Your task to perform on an android device: Do I have any events tomorrow? Image 0: 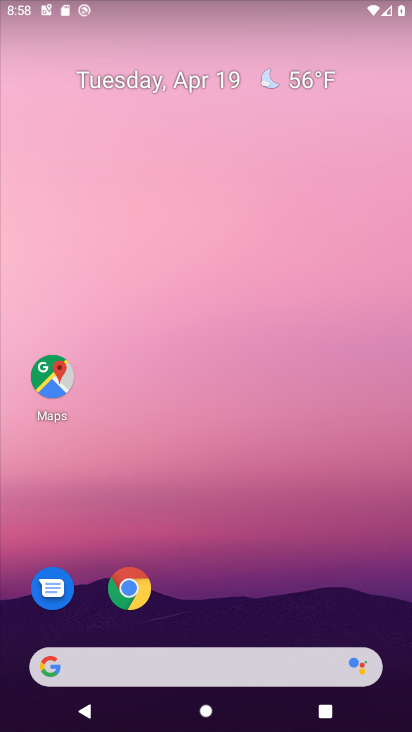
Step 0: click (53, 373)
Your task to perform on an android device: Do I have any events tomorrow? Image 1: 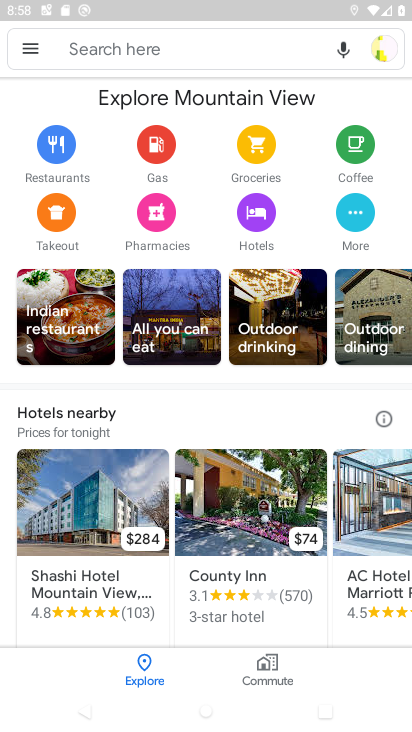
Step 1: press home button
Your task to perform on an android device: Do I have any events tomorrow? Image 2: 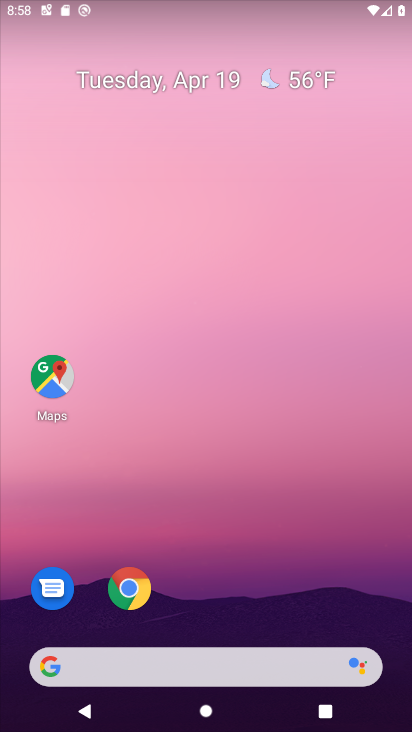
Step 2: drag from (211, 628) to (185, 32)
Your task to perform on an android device: Do I have any events tomorrow? Image 3: 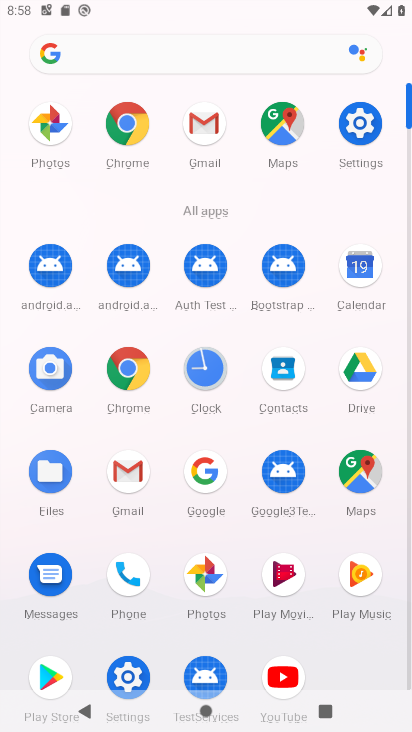
Step 3: click (355, 263)
Your task to perform on an android device: Do I have any events tomorrow? Image 4: 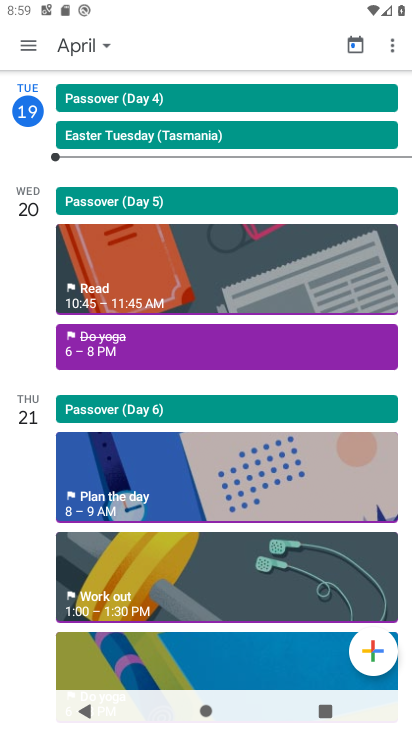
Step 4: click (21, 139)
Your task to perform on an android device: Do I have any events tomorrow? Image 5: 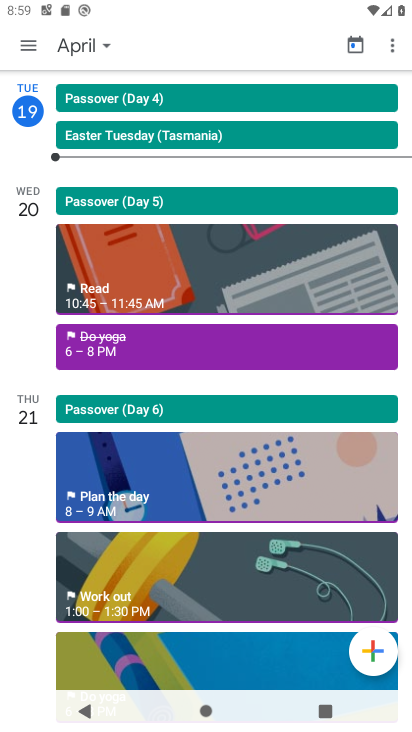
Step 5: click (31, 42)
Your task to perform on an android device: Do I have any events tomorrow? Image 6: 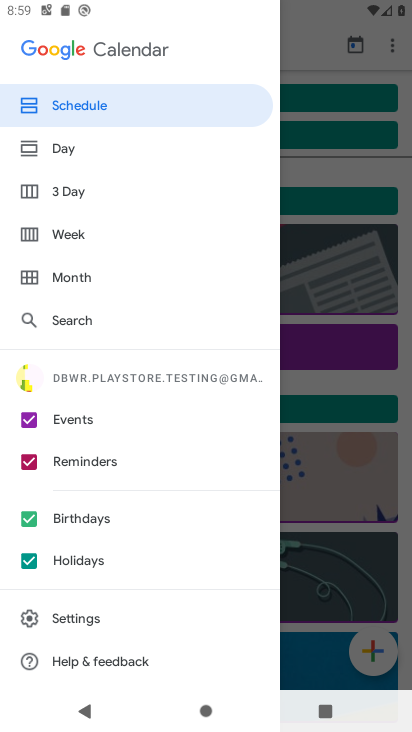
Step 6: click (30, 462)
Your task to perform on an android device: Do I have any events tomorrow? Image 7: 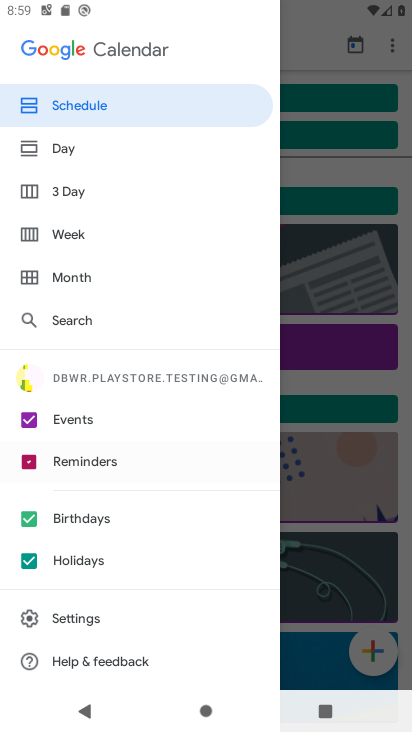
Step 7: click (28, 515)
Your task to perform on an android device: Do I have any events tomorrow? Image 8: 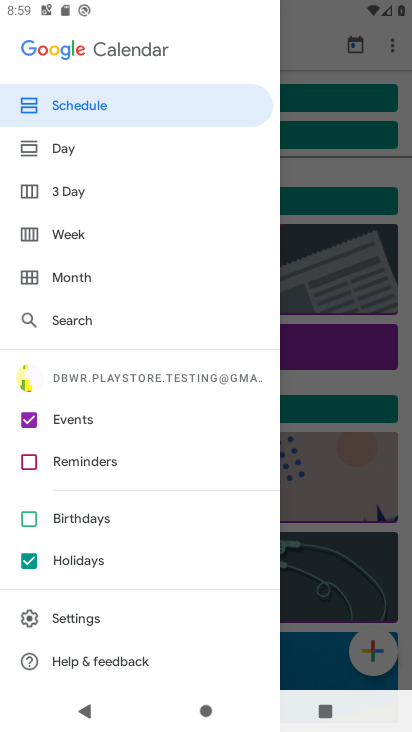
Step 8: click (26, 561)
Your task to perform on an android device: Do I have any events tomorrow? Image 9: 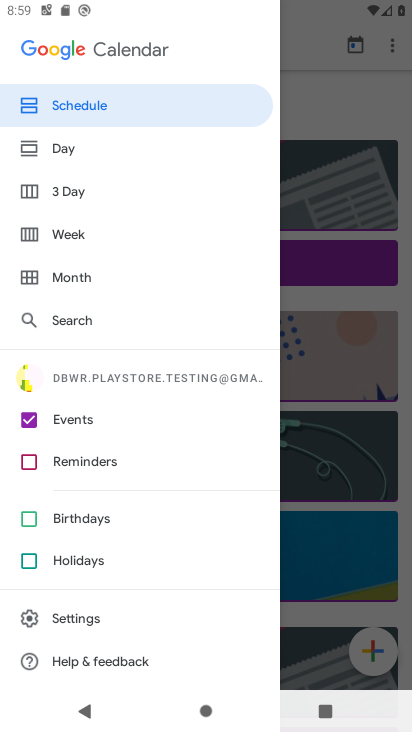
Step 9: click (60, 107)
Your task to perform on an android device: Do I have any events tomorrow? Image 10: 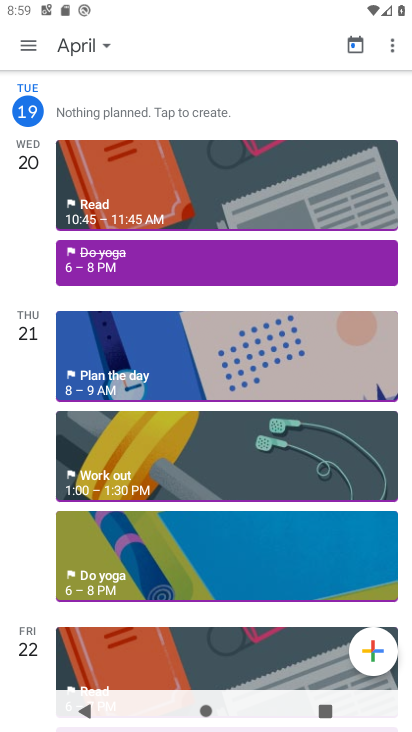
Step 10: click (31, 42)
Your task to perform on an android device: Do I have any events tomorrow? Image 11: 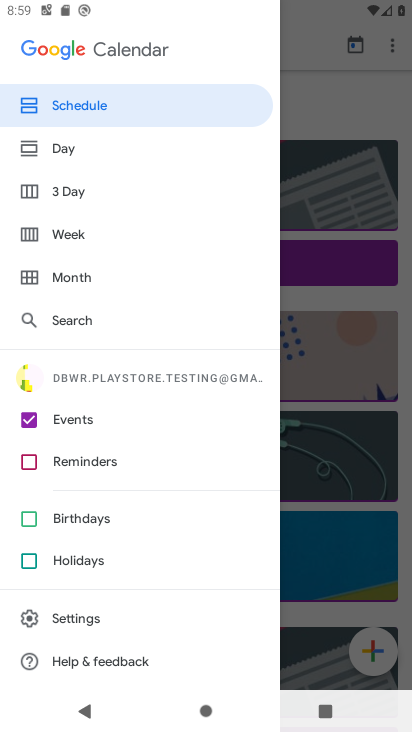
Step 11: click (69, 153)
Your task to perform on an android device: Do I have any events tomorrow? Image 12: 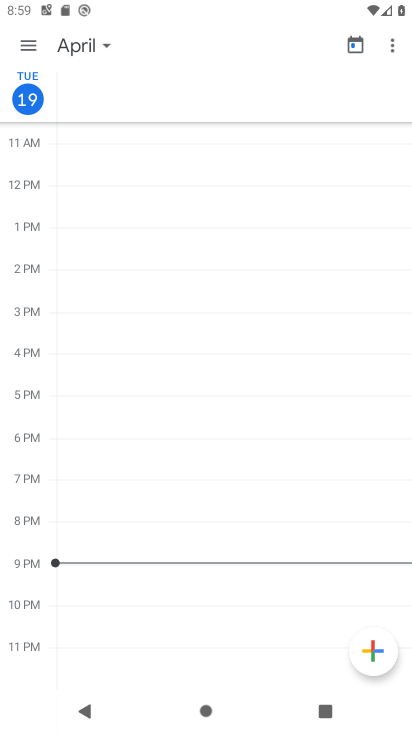
Step 12: click (19, 43)
Your task to perform on an android device: Do I have any events tomorrow? Image 13: 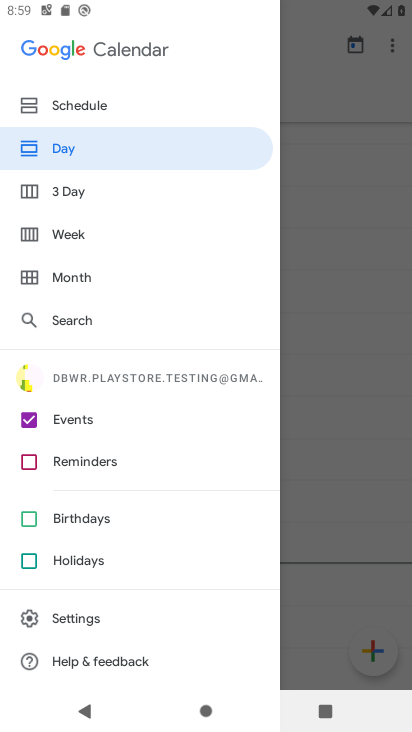
Step 13: click (60, 230)
Your task to perform on an android device: Do I have any events tomorrow? Image 14: 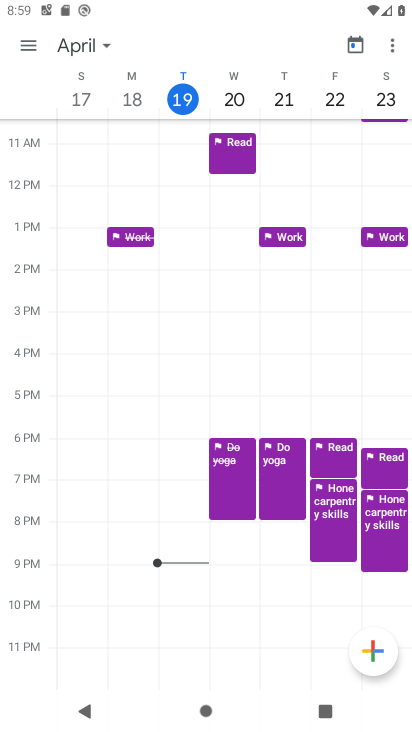
Step 14: click (240, 92)
Your task to perform on an android device: Do I have any events tomorrow? Image 15: 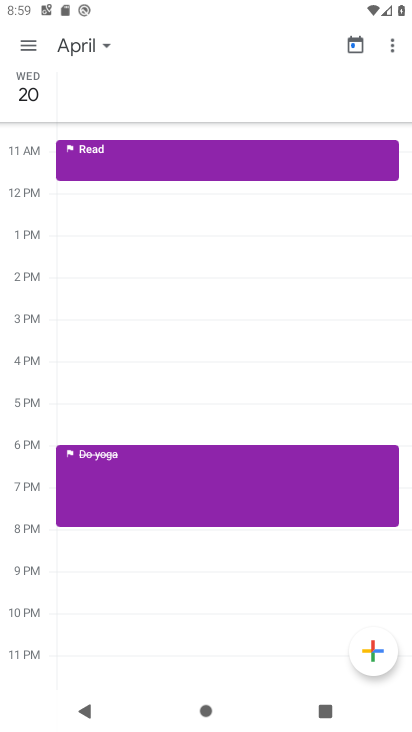
Step 15: task complete